Your task to perform on an android device: Open Google Chrome and open the bookmarks view Image 0: 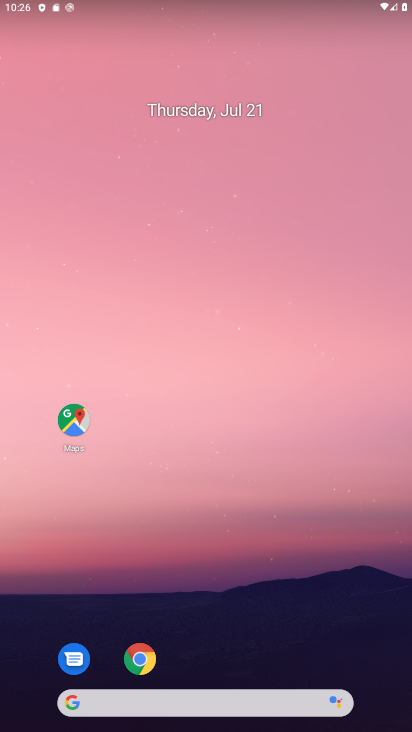
Step 0: click (141, 669)
Your task to perform on an android device: Open Google Chrome and open the bookmarks view Image 1: 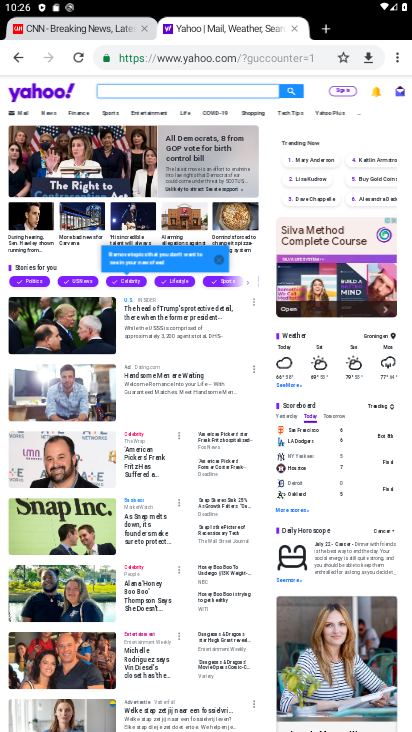
Step 1: click (396, 59)
Your task to perform on an android device: Open Google Chrome and open the bookmarks view Image 2: 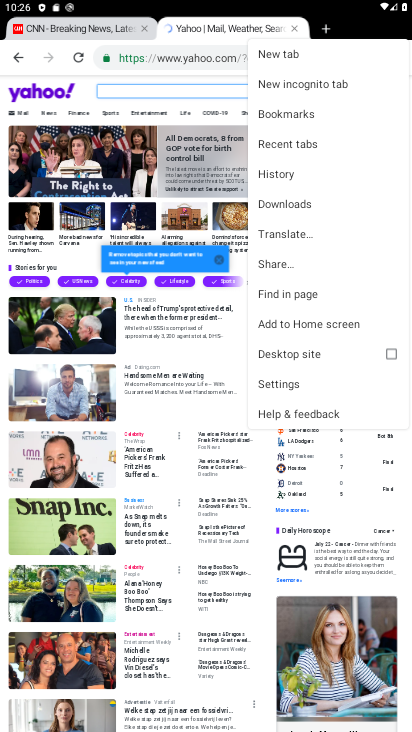
Step 2: click (285, 114)
Your task to perform on an android device: Open Google Chrome and open the bookmarks view Image 3: 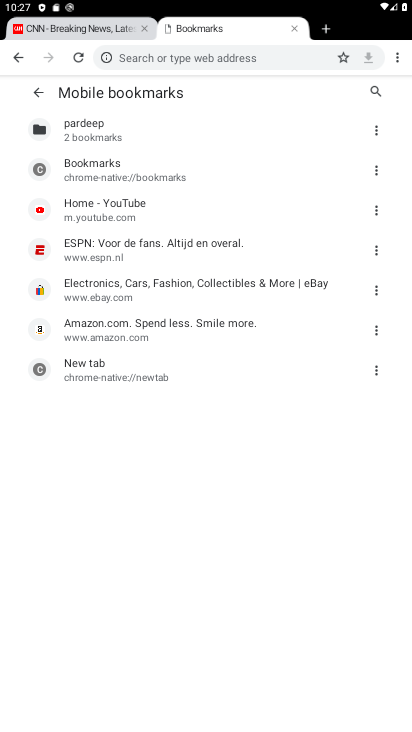
Step 3: task complete